Your task to perform on an android device: Show me the alarms in the clock app Image 0: 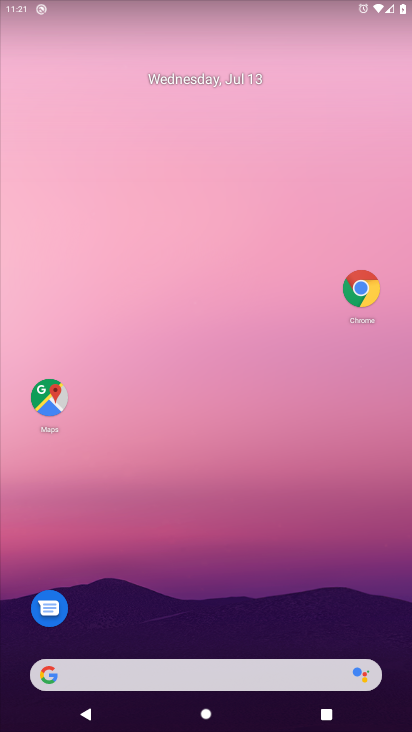
Step 0: drag from (73, 660) to (280, 5)
Your task to perform on an android device: Show me the alarms in the clock app Image 1: 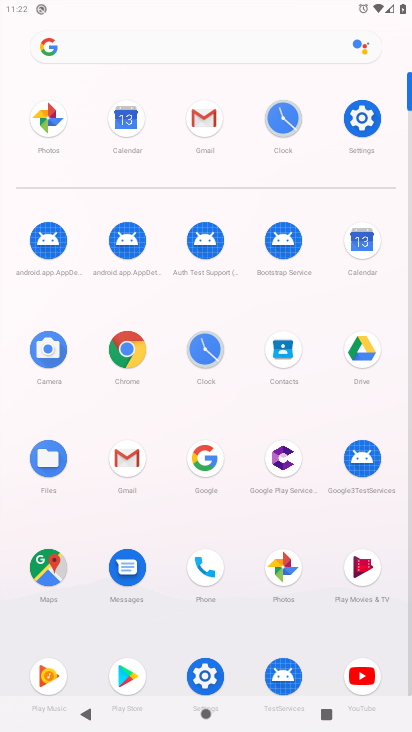
Step 1: click (283, 114)
Your task to perform on an android device: Show me the alarms in the clock app Image 2: 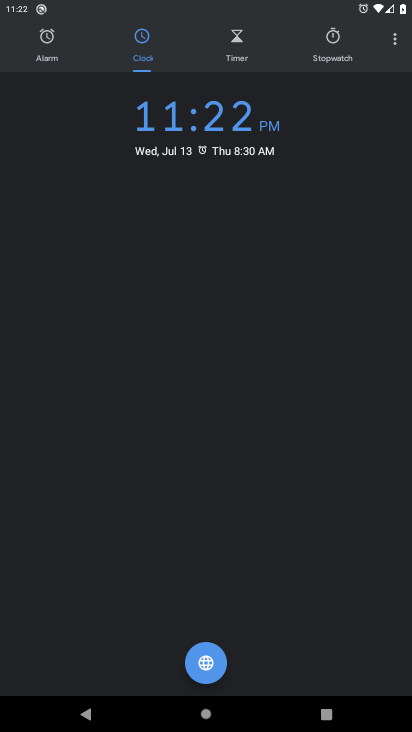
Step 2: click (45, 44)
Your task to perform on an android device: Show me the alarms in the clock app Image 3: 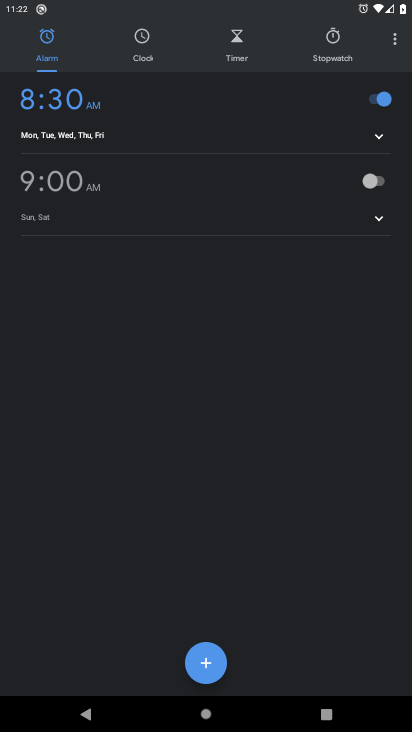
Step 3: task complete